Your task to perform on an android device: toggle translation in the chrome app Image 0: 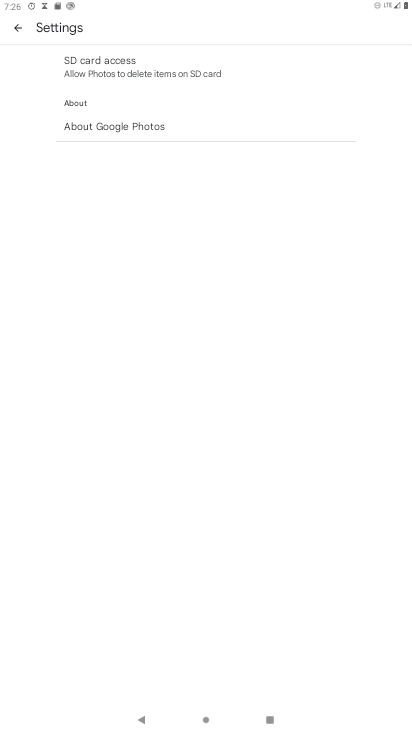
Step 0: press home button
Your task to perform on an android device: toggle translation in the chrome app Image 1: 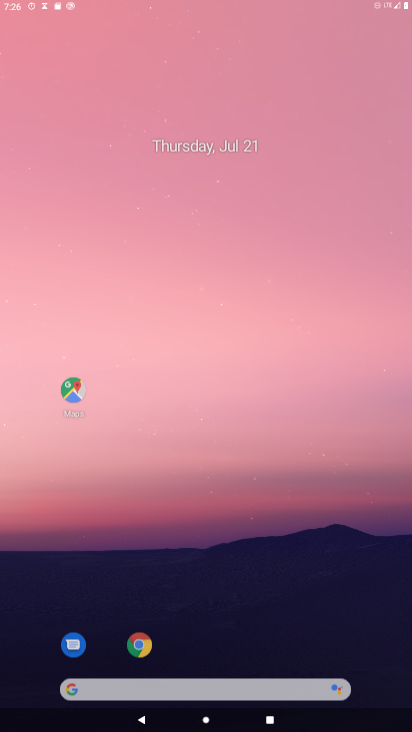
Step 1: drag from (404, 666) to (247, 7)
Your task to perform on an android device: toggle translation in the chrome app Image 2: 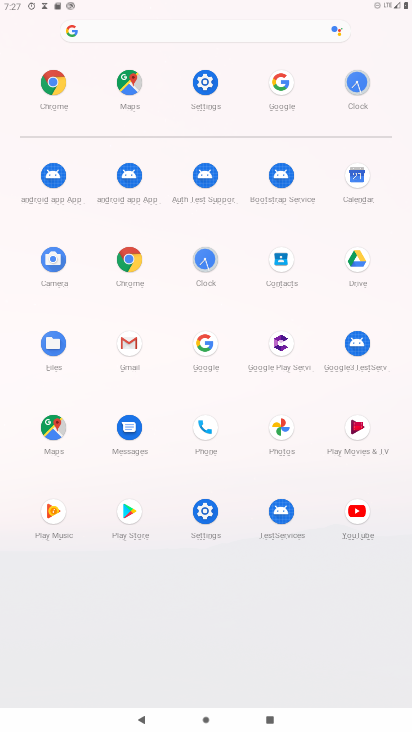
Step 2: click (132, 268)
Your task to perform on an android device: toggle translation in the chrome app Image 3: 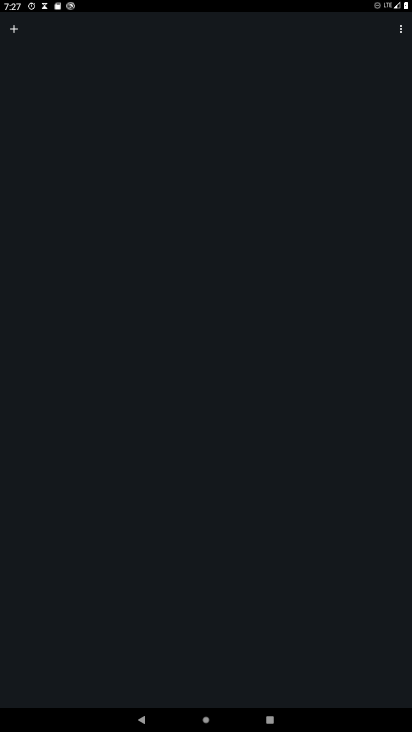
Step 3: click (400, 24)
Your task to perform on an android device: toggle translation in the chrome app Image 4: 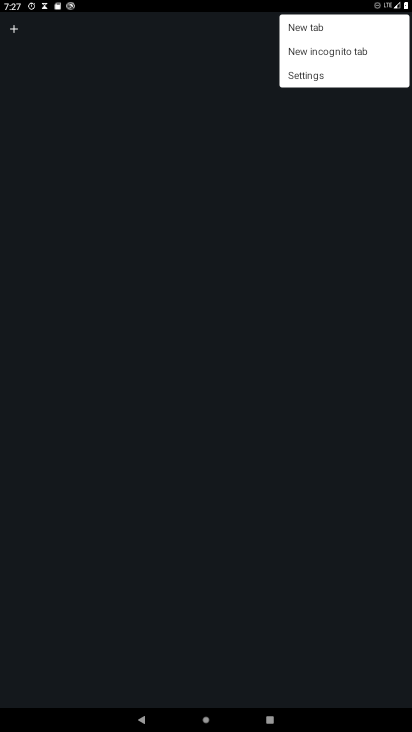
Step 4: click (303, 76)
Your task to perform on an android device: toggle translation in the chrome app Image 5: 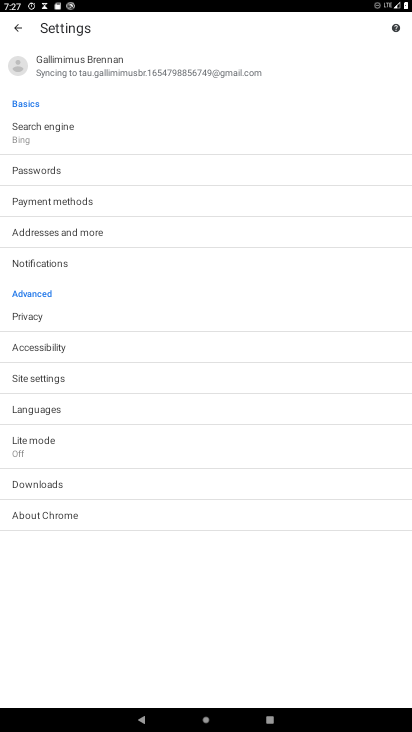
Step 5: click (54, 408)
Your task to perform on an android device: toggle translation in the chrome app Image 6: 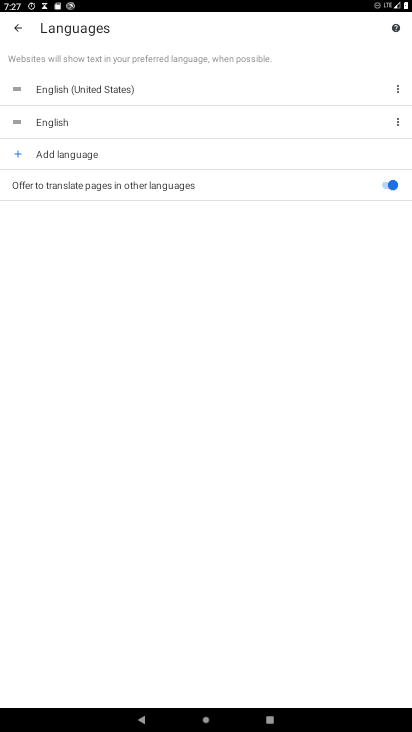
Step 6: click (382, 188)
Your task to perform on an android device: toggle translation in the chrome app Image 7: 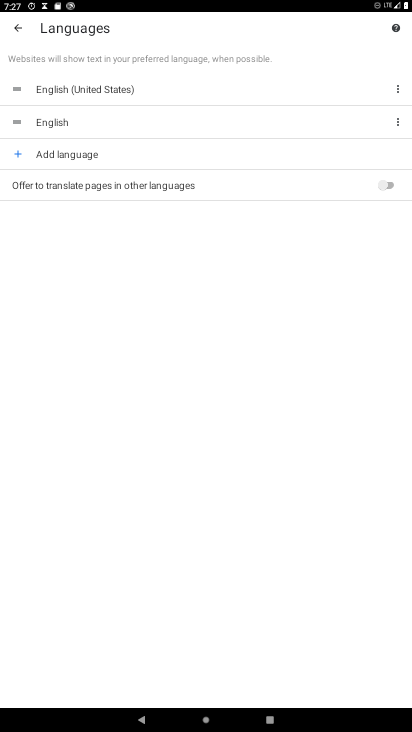
Step 7: task complete